Your task to perform on an android device: turn on the 24-hour format for clock Image 0: 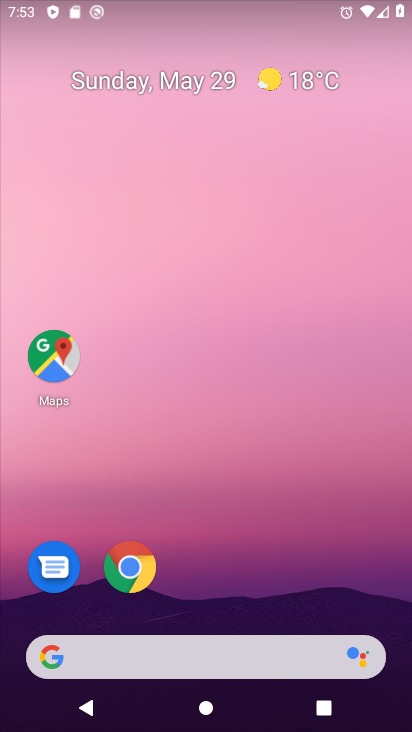
Step 0: drag from (398, 699) to (332, 46)
Your task to perform on an android device: turn on the 24-hour format for clock Image 1: 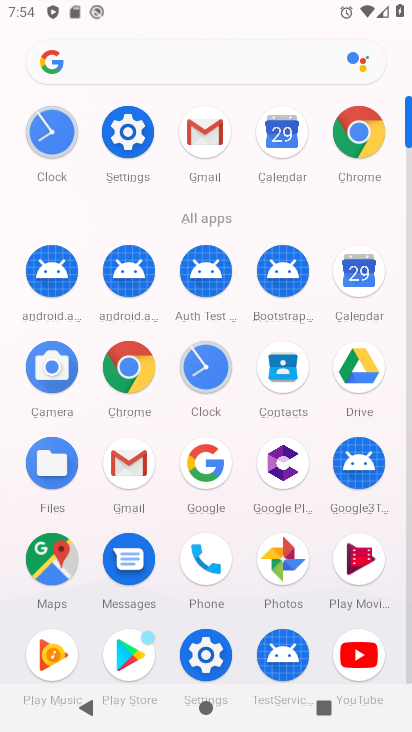
Step 1: click (209, 371)
Your task to perform on an android device: turn on the 24-hour format for clock Image 2: 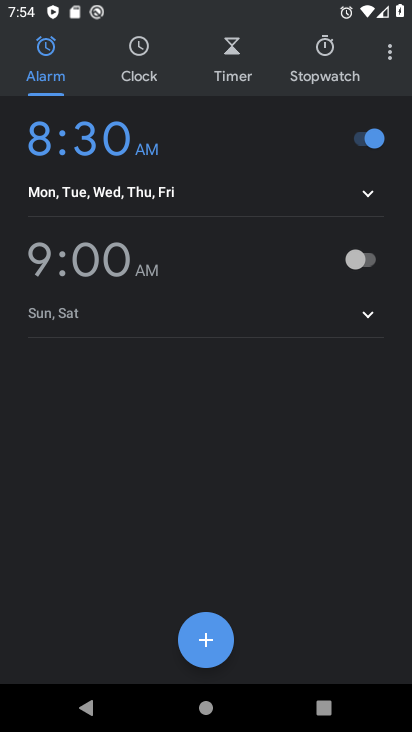
Step 2: click (392, 49)
Your task to perform on an android device: turn on the 24-hour format for clock Image 3: 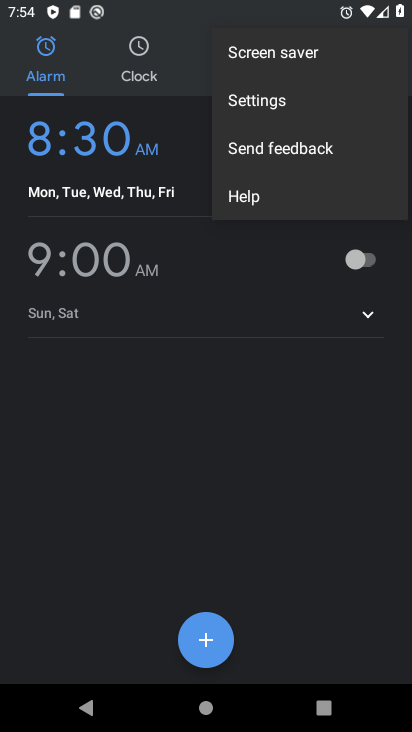
Step 3: click (244, 108)
Your task to perform on an android device: turn on the 24-hour format for clock Image 4: 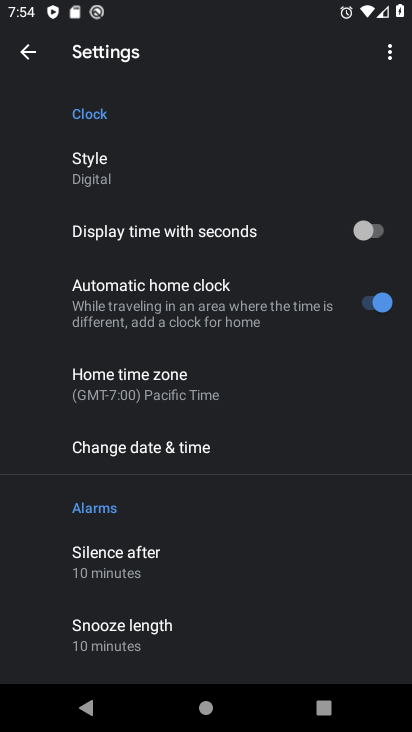
Step 4: click (159, 440)
Your task to perform on an android device: turn on the 24-hour format for clock Image 5: 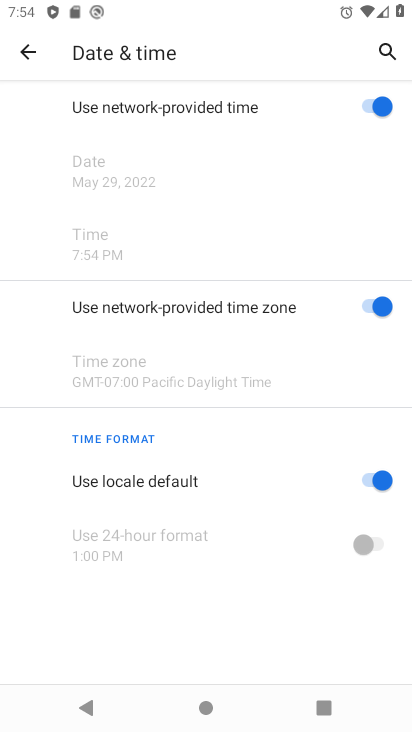
Step 5: click (369, 480)
Your task to perform on an android device: turn on the 24-hour format for clock Image 6: 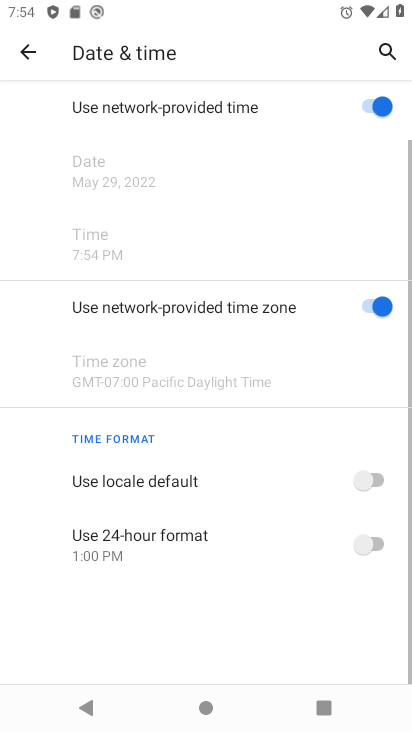
Step 6: click (376, 546)
Your task to perform on an android device: turn on the 24-hour format for clock Image 7: 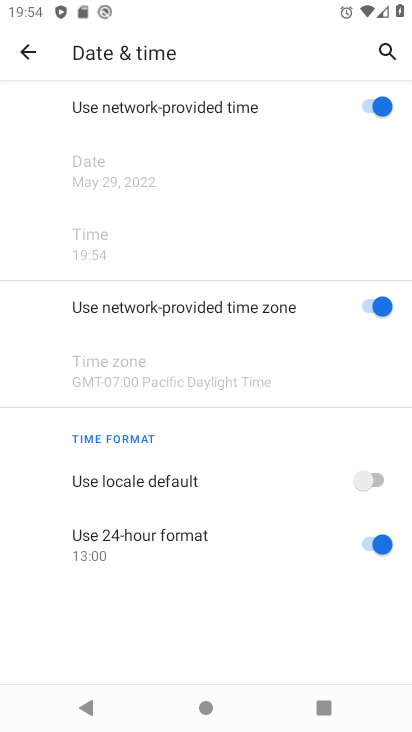
Step 7: task complete